Your task to perform on an android device: turn on javascript in the chrome app Image 0: 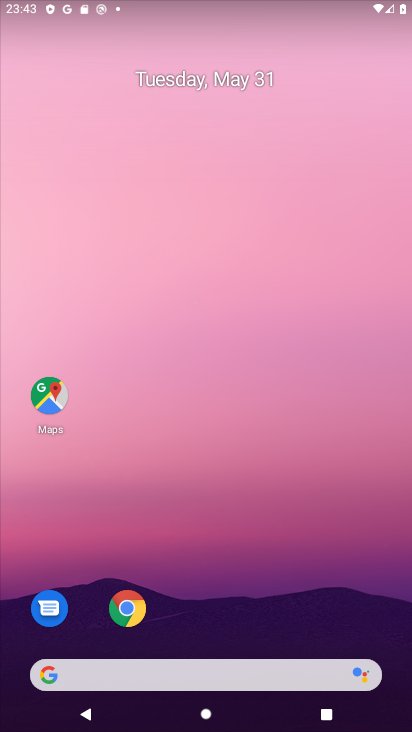
Step 0: click (132, 605)
Your task to perform on an android device: turn on javascript in the chrome app Image 1: 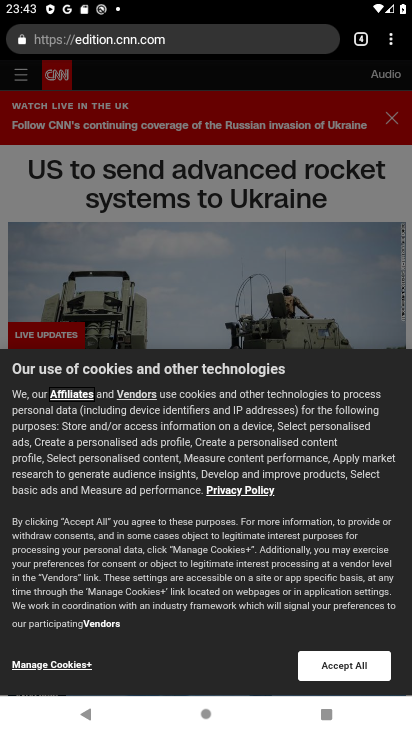
Step 1: drag from (389, 37) to (268, 435)
Your task to perform on an android device: turn on javascript in the chrome app Image 2: 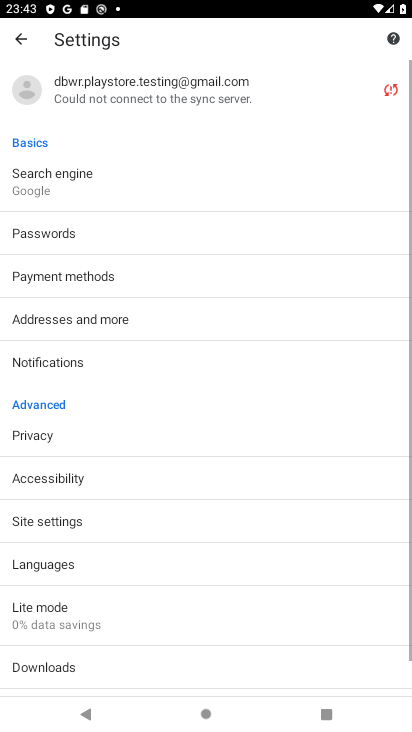
Step 2: click (105, 514)
Your task to perform on an android device: turn on javascript in the chrome app Image 3: 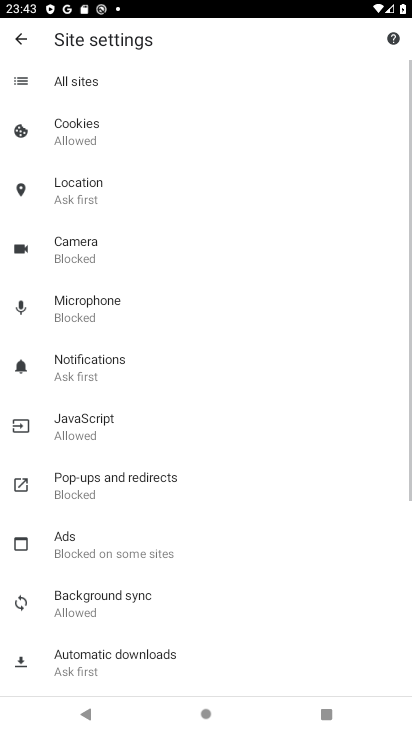
Step 3: click (109, 433)
Your task to perform on an android device: turn on javascript in the chrome app Image 4: 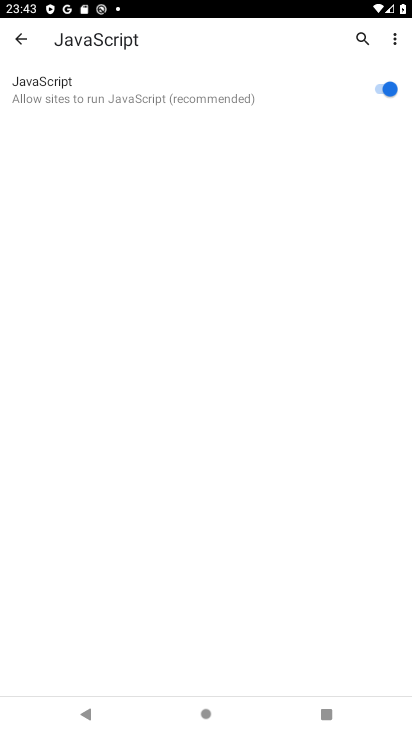
Step 4: task complete